Your task to perform on an android device: Open Youtube and go to the subscriptions tab Image 0: 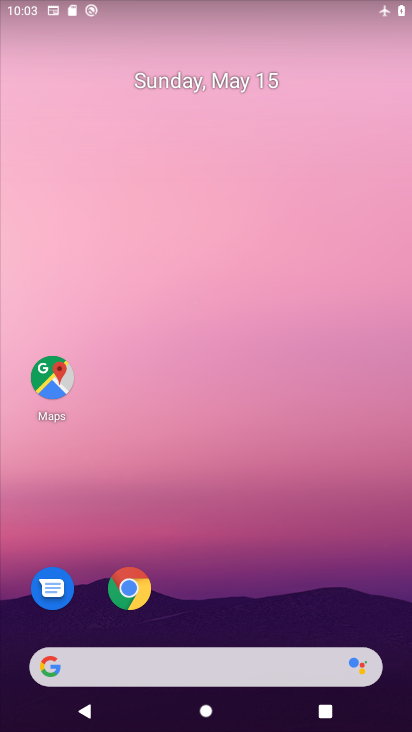
Step 0: drag from (260, 623) to (158, 262)
Your task to perform on an android device: Open Youtube and go to the subscriptions tab Image 1: 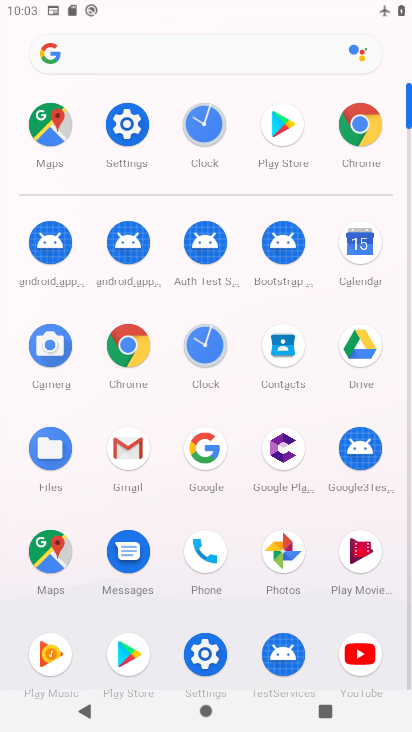
Step 1: click (365, 654)
Your task to perform on an android device: Open Youtube and go to the subscriptions tab Image 2: 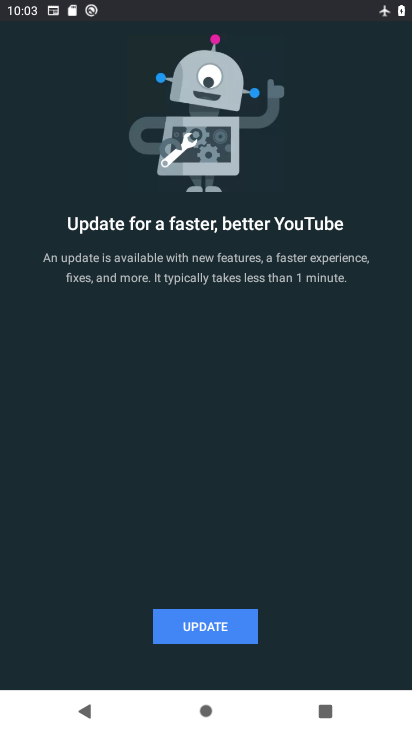
Step 2: click (182, 631)
Your task to perform on an android device: Open Youtube and go to the subscriptions tab Image 3: 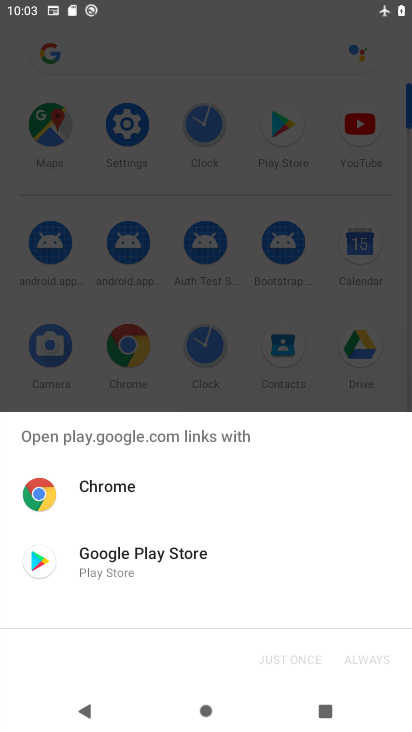
Step 3: click (159, 547)
Your task to perform on an android device: Open Youtube and go to the subscriptions tab Image 4: 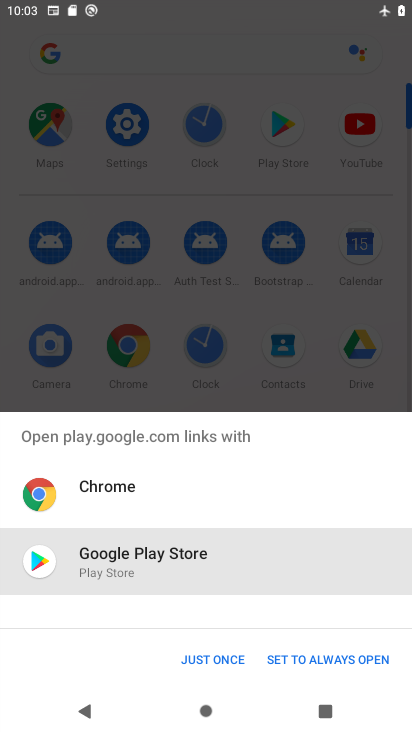
Step 4: click (210, 659)
Your task to perform on an android device: Open Youtube and go to the subscriptions tab Image 5: 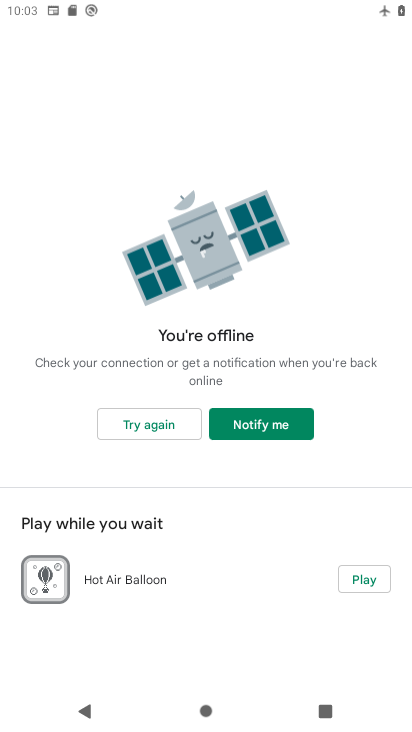
Step 5: click (183, 425)
Your task to perform on an android device: Open Youtube and go to the subscriptions tab Image 6: 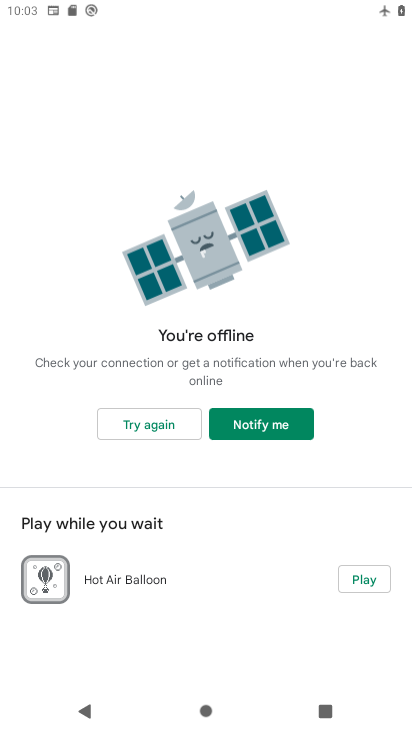
Step 6: click (183, 425)
Your task to perform on an android device: Open Youtube and go to the subscriptions tab Image 7: 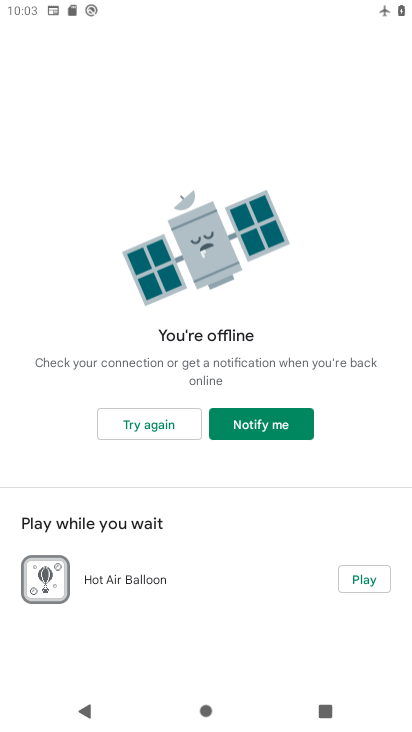
Step 7: click (158, 422)
Your task to perform on an android device: Open Youtube and go to the subscriptions tab Image 8: 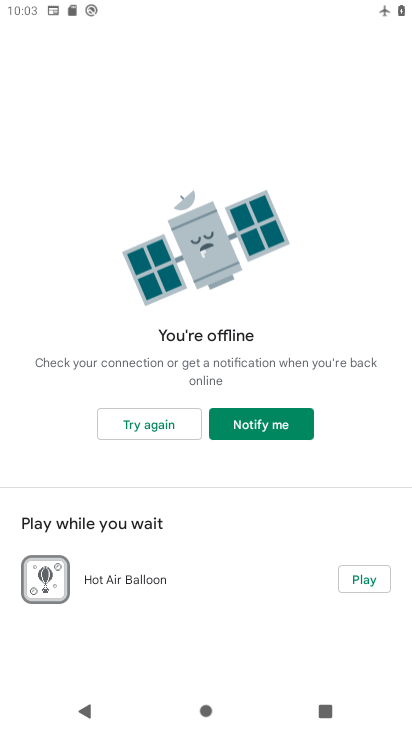
Step 8: click (158, 422)
Your task to perform on an android device: Open Youtube and go to the subscriptions tab Image 9: 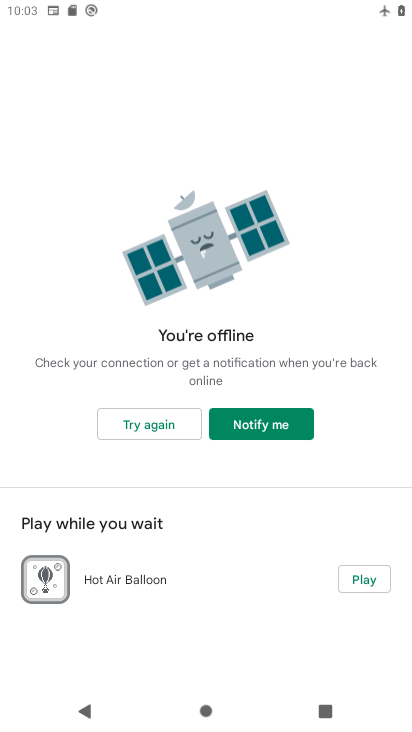
Step 9: click (158, 422)
Your task to perform on an android device: Open Youtube and go to the subscriptions tab Image 10: 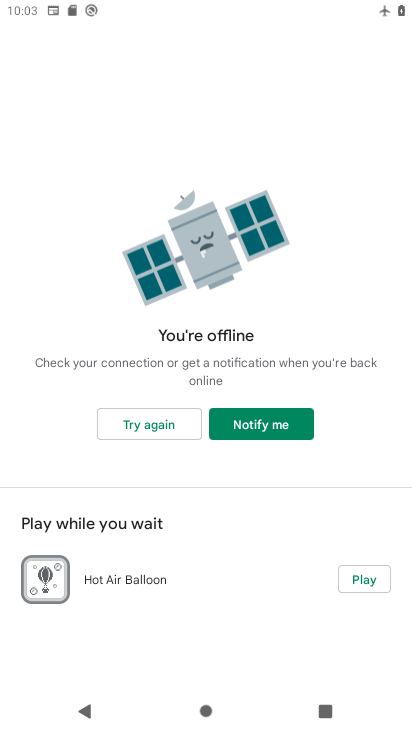
Step 10: click (158, 422)
Your task to perform on an android device: Open Youtube and go to the subscriptions tab Image 11: 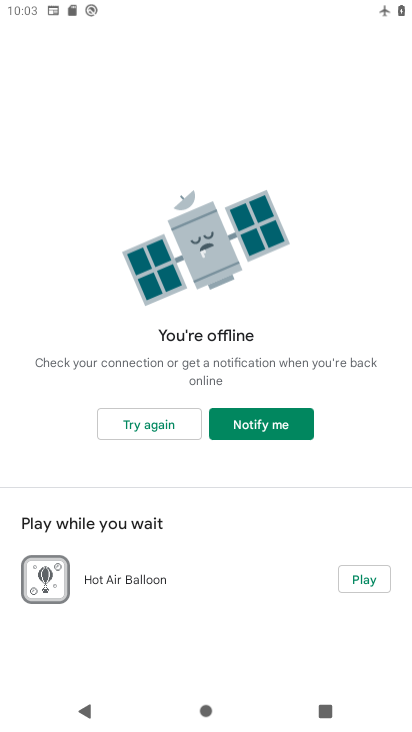
Step 11: click (158, 422)
Your task to perform on an android device: Open Youtube and go to the subscriptions tab Image 12: 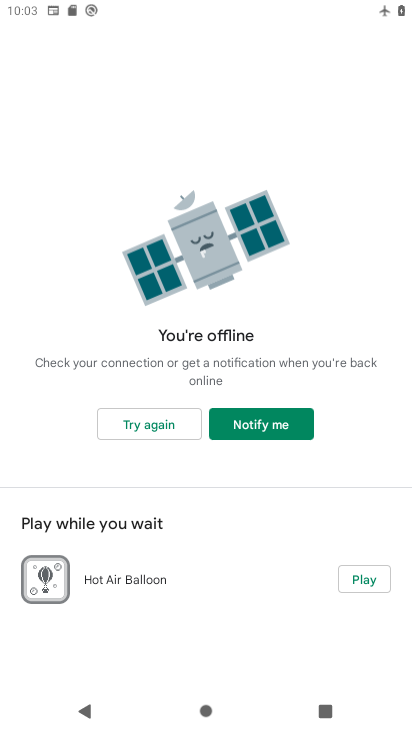
Step 12: click (158, 422)
Your task to perform on an android device: Open Youtube and go to the subscriptions tab Image 13: 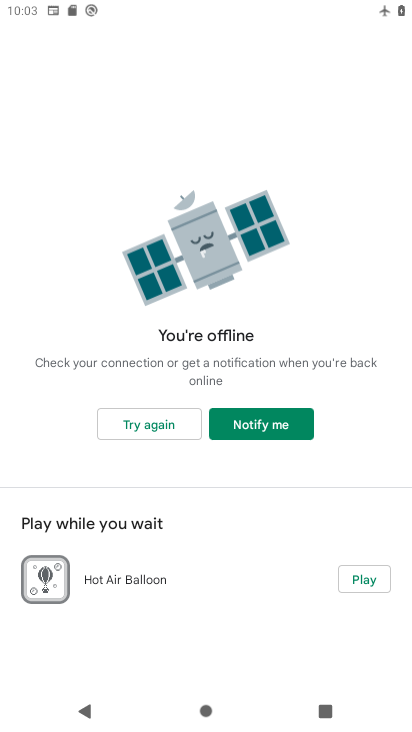
Step 13: task complete